Your task to perform on an android device: Find coffee shops on Maps Image 0: 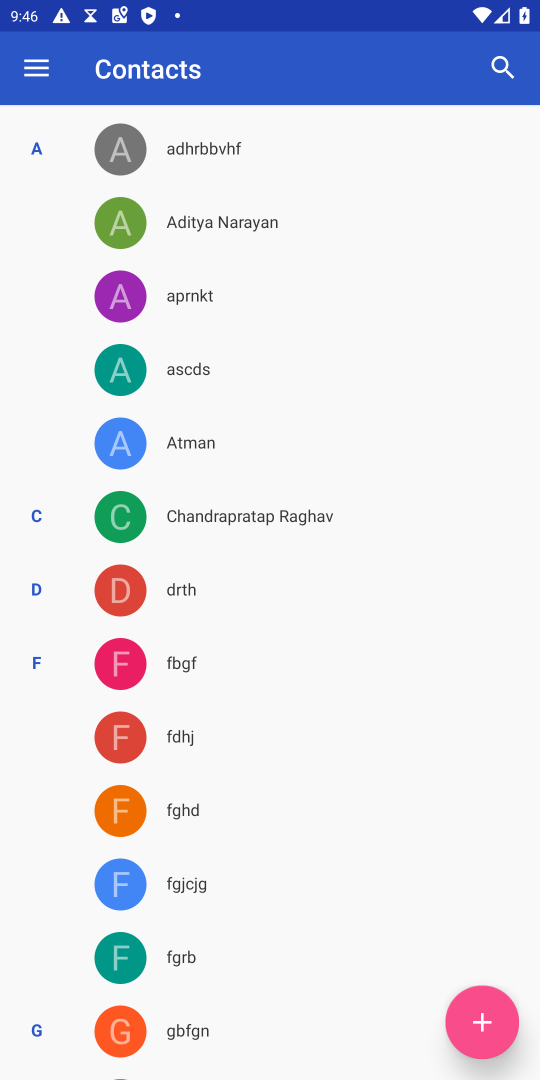
Step 0: press home button
Your task to perform on an android device: Find coffee shops on Maps Image 1: 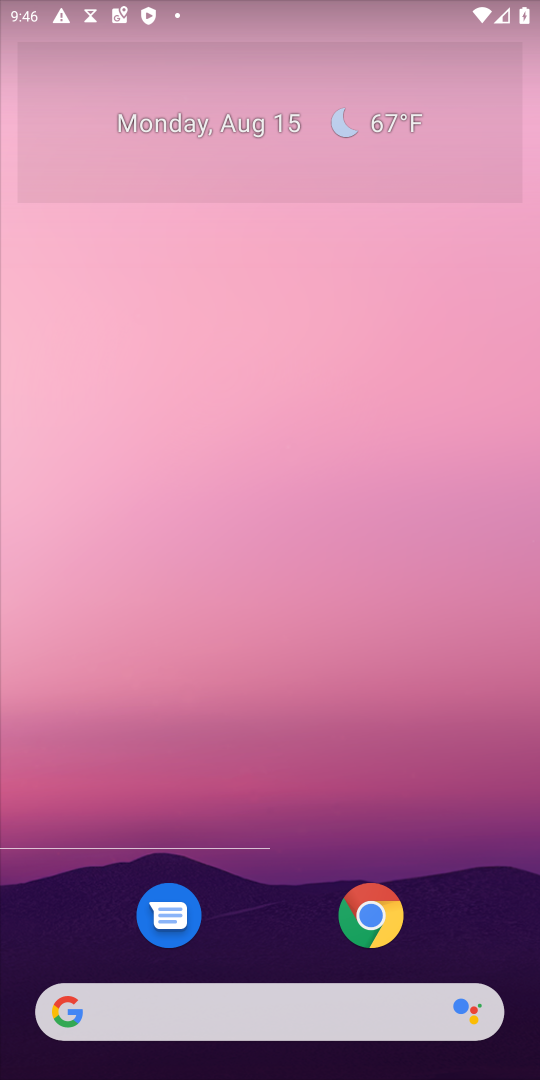
Step 1: drag from (306, 904) to (312, 478)
Your task to perform on an android device: Find coffee shops on Maps Image 2: 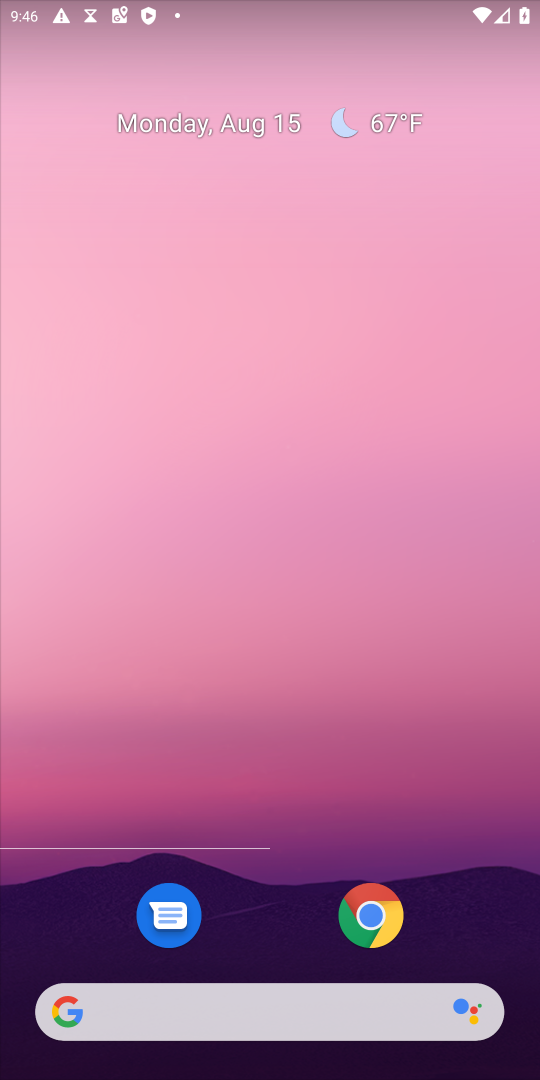
Step 2: click (308, 244)
Your task to perform on an android device: Find coffee shops on Maps Image 3: 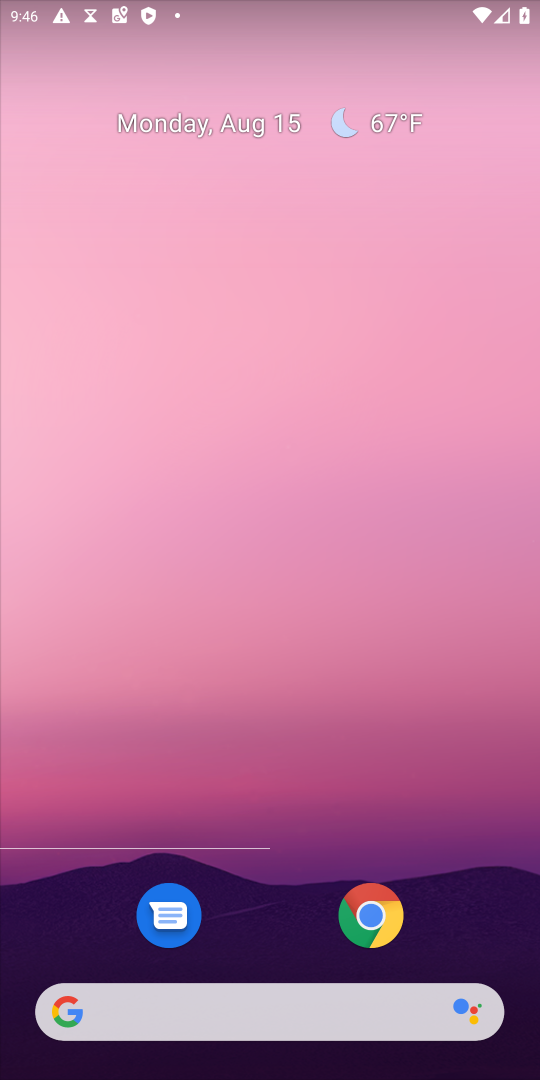
Step 3: drag from (289, 938) to (410, 124)
Your task to perform on an android device: Find coffee shops on Maps Image 4: 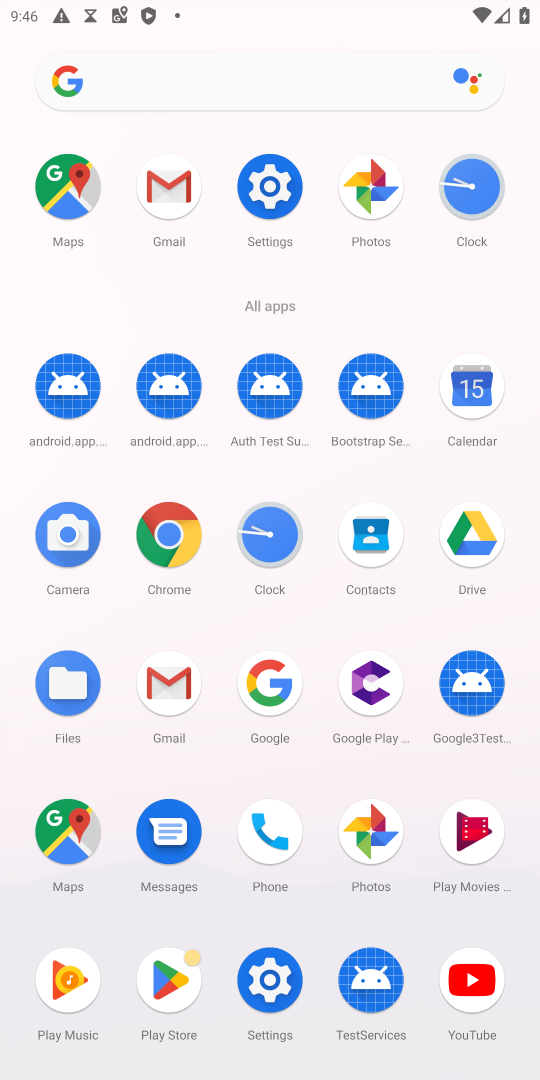
Step 4: click (84, 195)
Your task to perform on an android device: Find coffee shops on Maps Image 5: 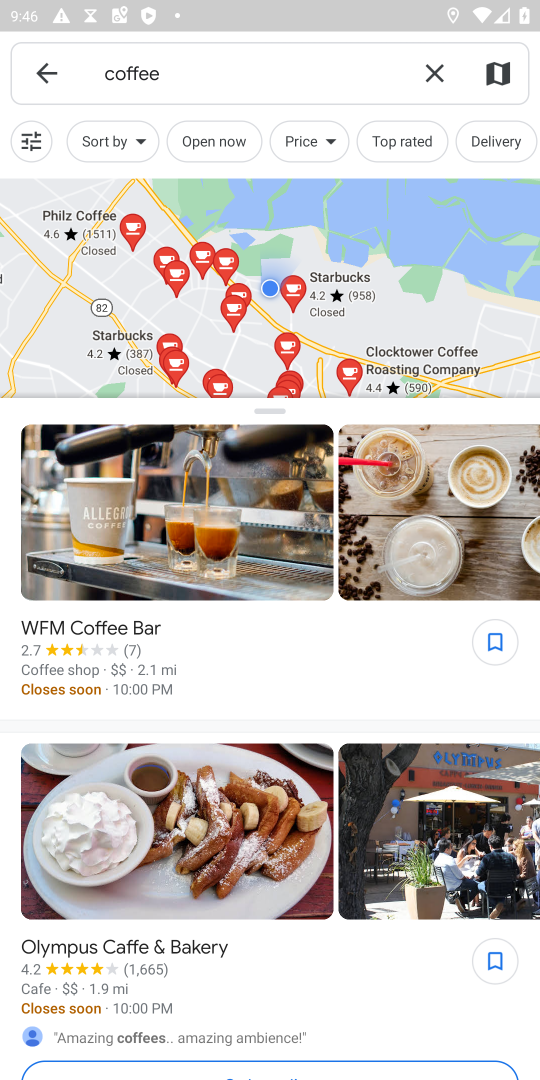
Step 5: click (237, 80)
Your task to perform on an android device: Find coffee shops on Maps Image 6: 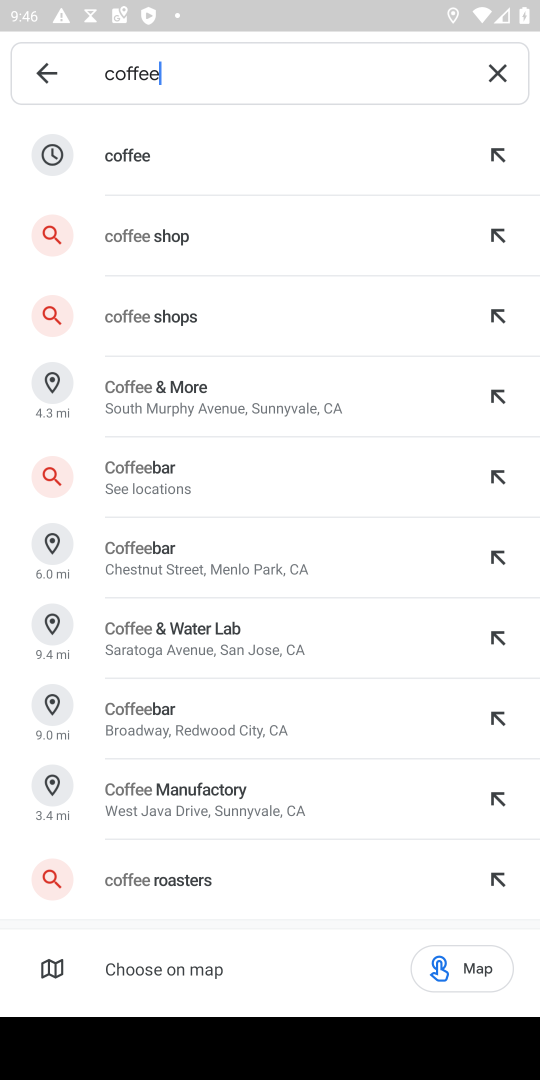
Step 6: click (153, 229)
Your task to perform on an android device: Find coffee shops on Maps Image 7: 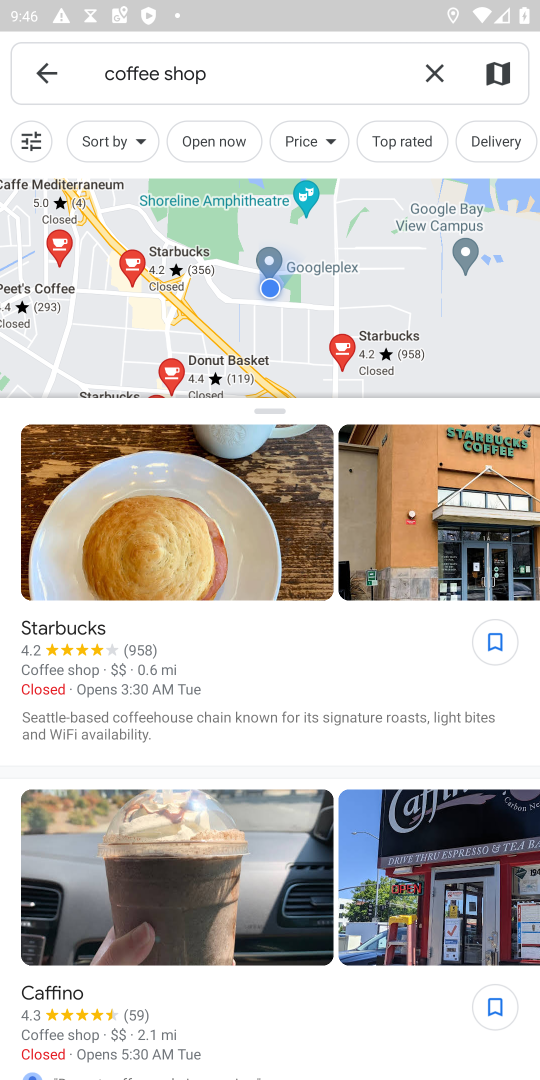
Step 7: task complete